Your task to perform on an android device: snooze an email in the gmail app Image 0: 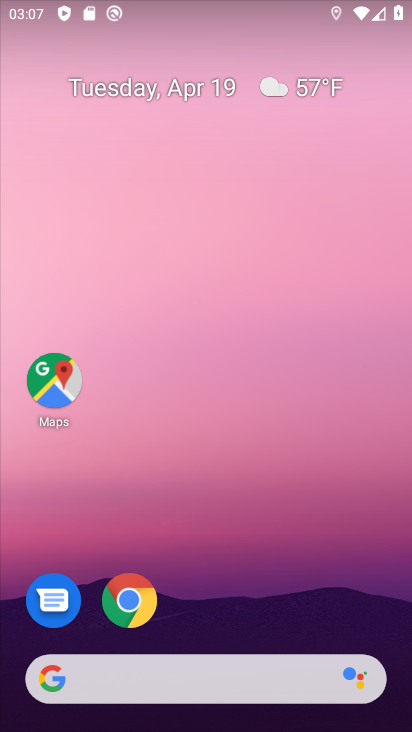
Step 0: drag from (378, 605) to (310, 39)
Your task to perform on an android device: snooze an email in the gmail app Image 1: 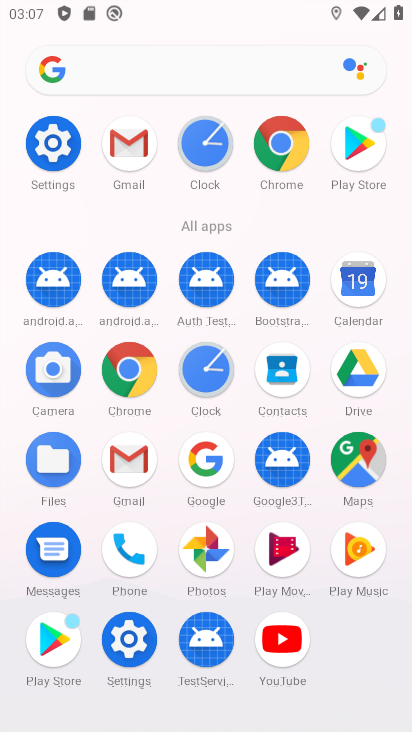
Step 1: click (124, 159)
Your task to perform on an android device: snooze an email in the gmail app Image 2: 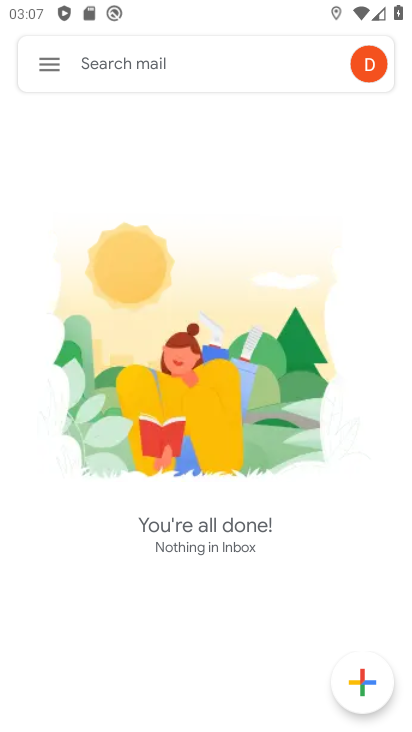
Step 2: click (47, 60)
Your task to perform on an android device: snooze an email in the gmail app Image 3: 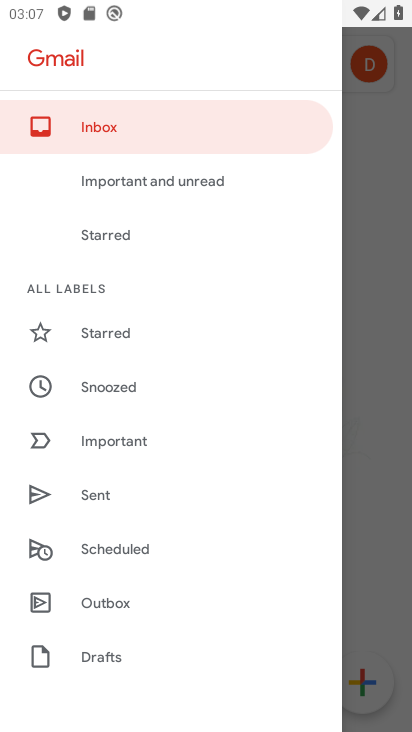
Step 3: drag from (228, 559) to (236, 112)
Your task to perform on an android device: snooze an email in the gmail app Image 4: 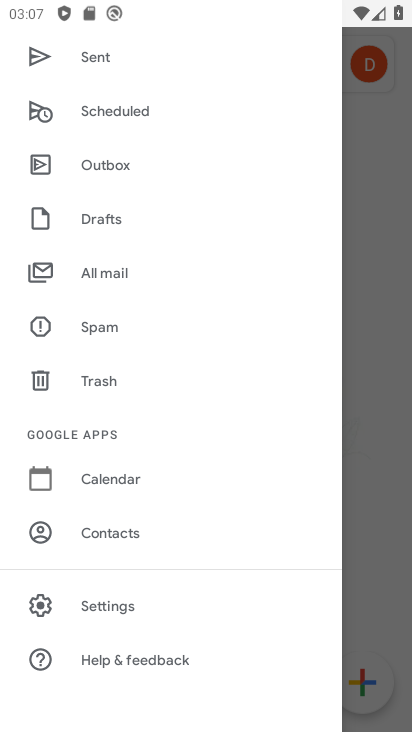
Step 4: click (197, 282)
Your task to perform on an android device: snooze an email in the gmail app Image 5: 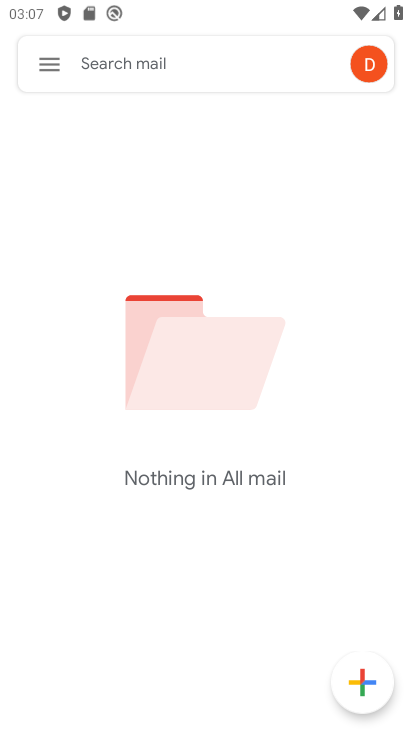
Step 5: task complete